Your task to perform on an android device: toggle notification dots Image 0: 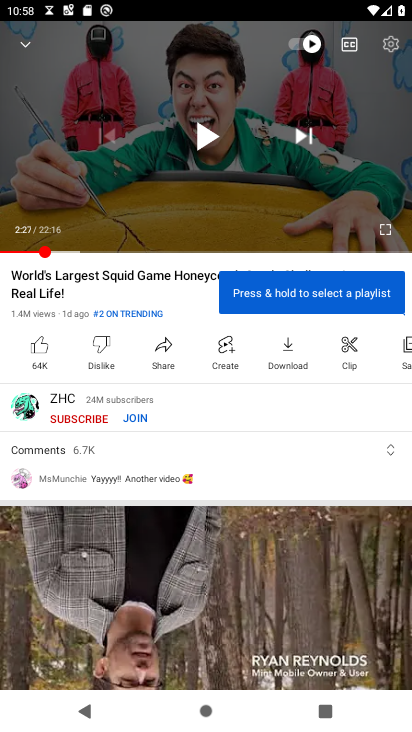
Step 0: press home button
Your task to perform on an android device: toggle notification dots Image 1: 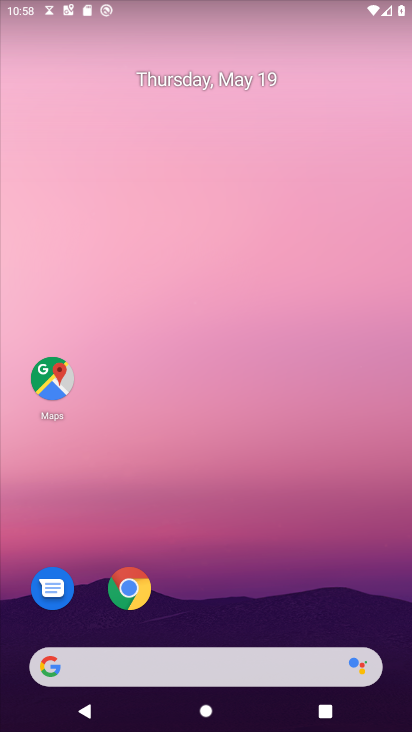
Step 1: drag from (292, 361) to (234, 10)
Your task to perform on an android device: toggle notification dots Image 2: 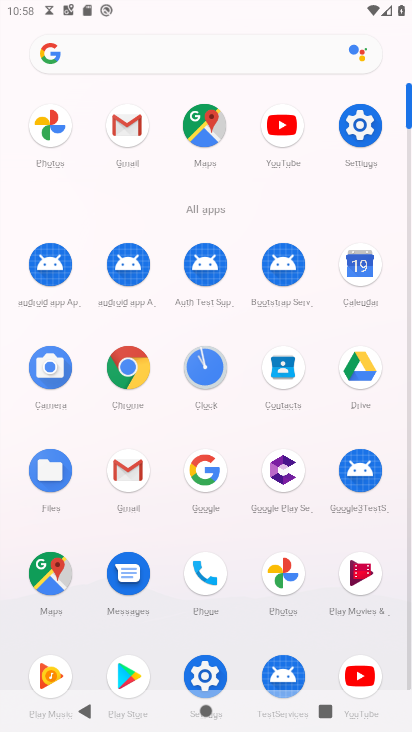
Step 2: click (364, 129)
Your task to perform on an android device: toggle notification dots Image 3: 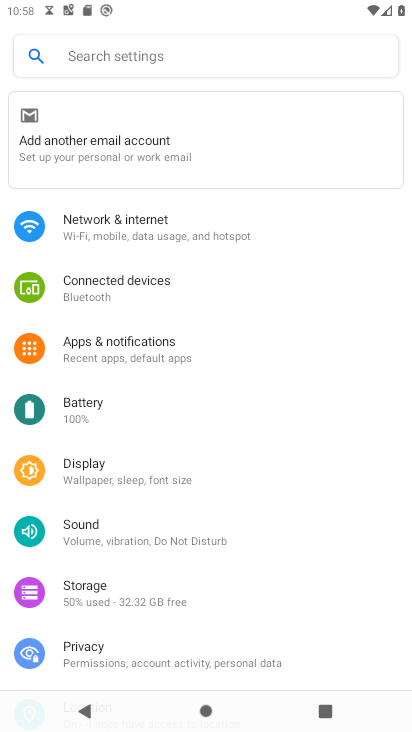
Step 3: click (123, 334)
Your task to perform on an android device: toggle notification dots Image 4: 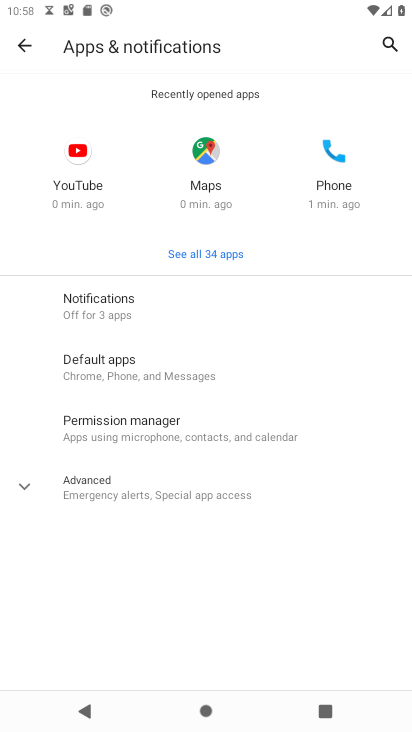
Step 4: click (155, 486)
Your task to perform on an android device: toggle notification dots Image 5: 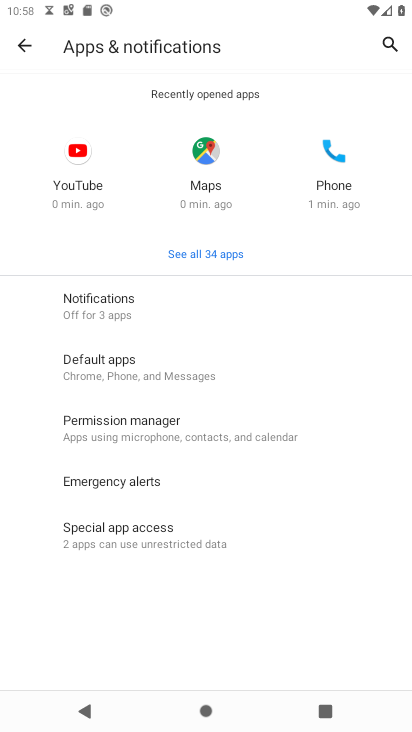
Step 5: click (161, 300)
Your task to perform on an android device: toggle notification dots Image 6: 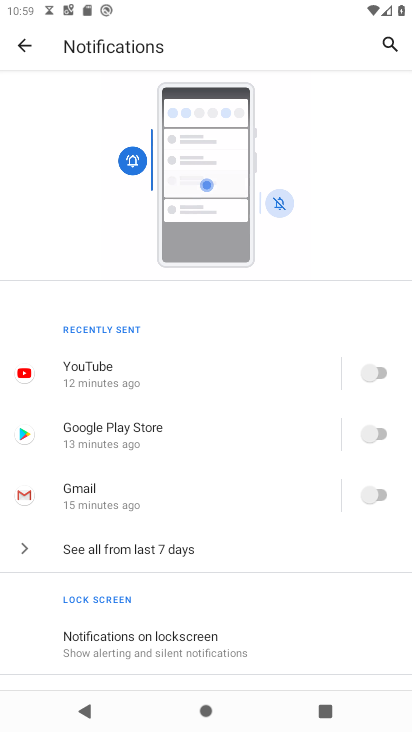
Step 6: drag from (245, 578) to (253, 306)
Your task to perform on an android device: toggle notification dots Image 7: 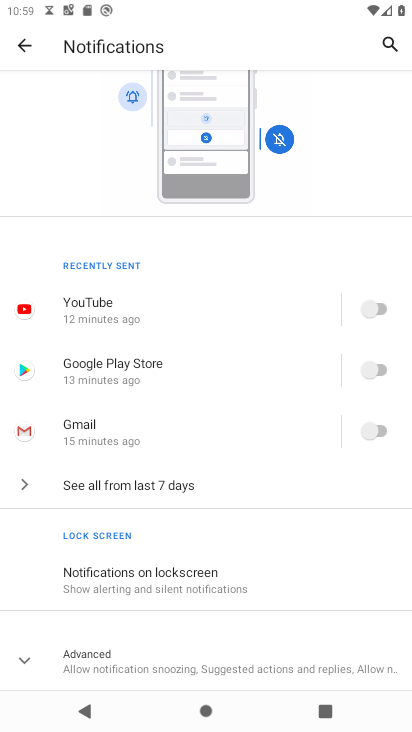
Step 7: drag from (248, 623) to (253, 382)
Your task to perform on an android device: toggle notification dots Image 8: 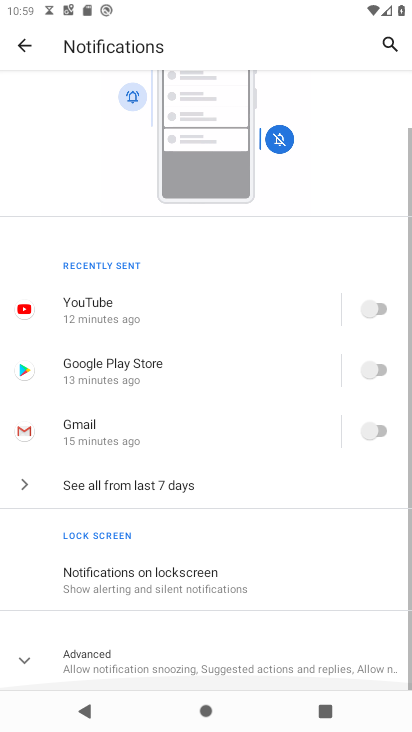
Step 8: click (184, 675)
Your task to perform on an android device: toggle notification dots Image 9: 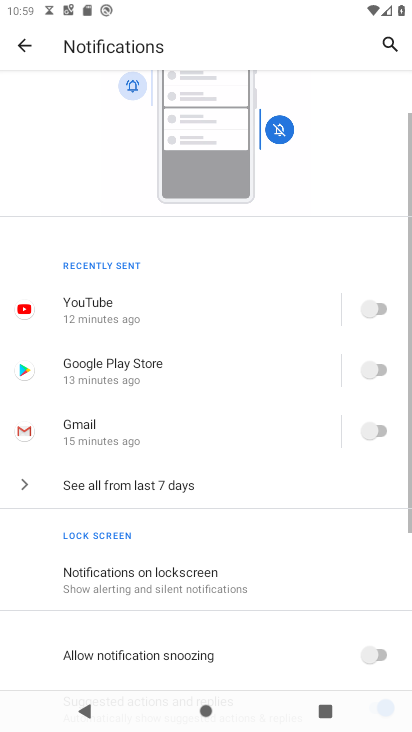
Step 9: drag from (231, 628) to (277, 275)
Your task to perform on an android device: toggle notification dots Image 10: 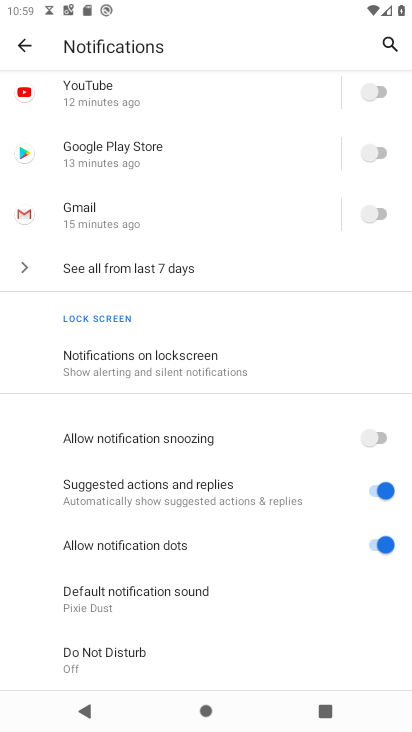
Step 10: click (388, 544)
Your task to perform on an android device: toggle notification dots Image 11: 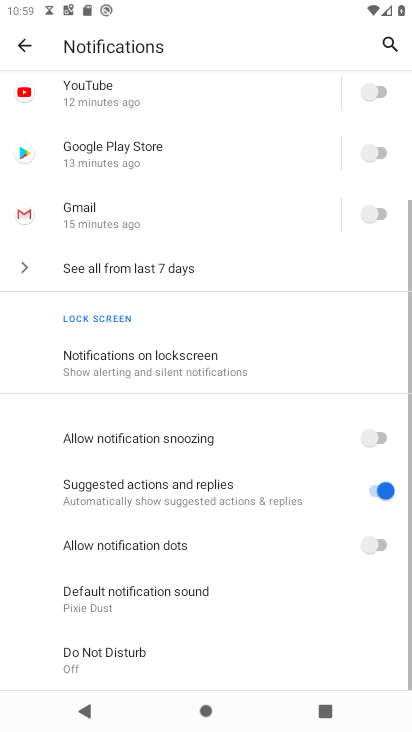
Step 11: task complete